Your task to perform on an android device: open chrome and create a bookmark for the current page Image 0: 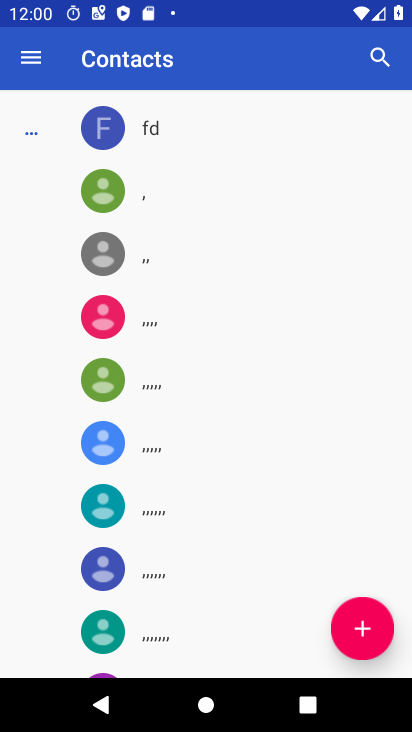
Step 0: press home button
Your task to perform on an android device: open chrome and create a bookmark for the current page Image 1: 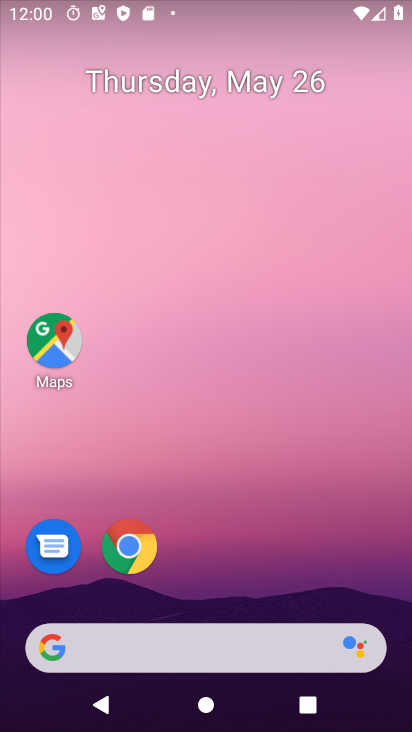
Step 1: click (123, 540)
Your task to perform on an android device: open chrome and create a bookmark for the current page Image 2: 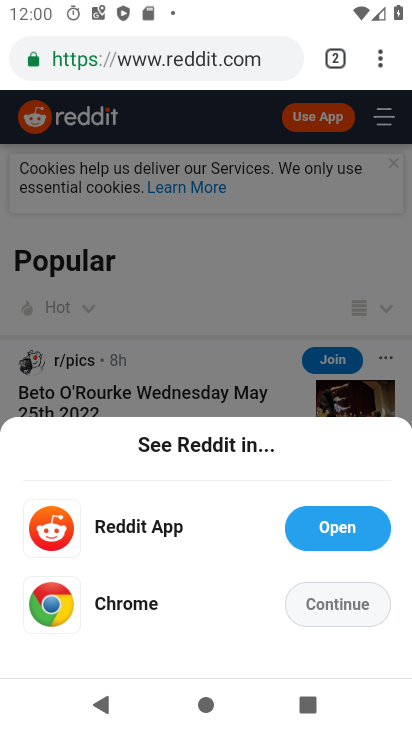
Step 2: click (375, 54)
Your task to perform on an android device: open chrome and create a bookmark for the current page Image 3: 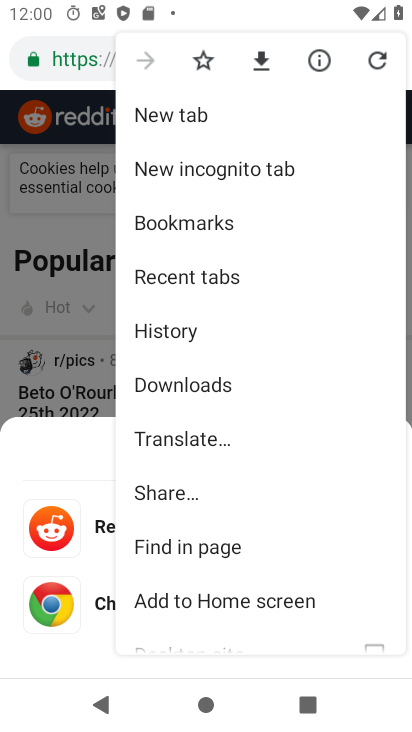
Step 3: click (207, 64)
Your task to perform on an android device: open chrome and create a bookmark for the current page Image 4: 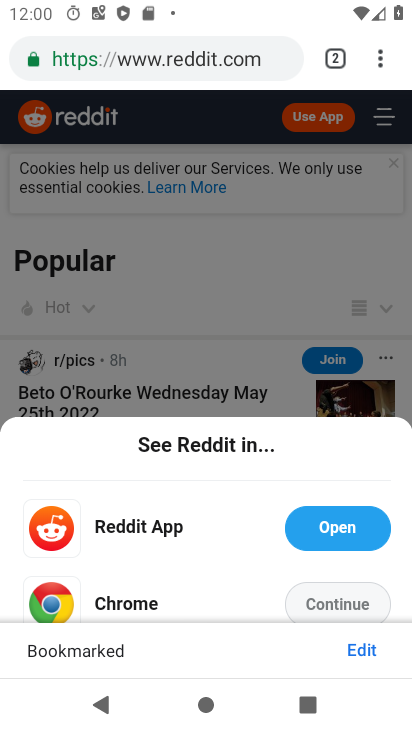
Step 4: task complete